Your task to perform on an android device: move a message to another label in the gmail app Image 0: 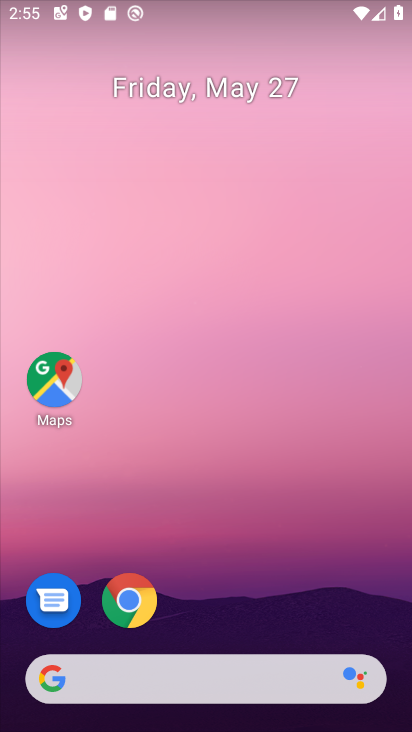
Step 0: drag from (265, 529) to (212, 171)
Your task to perform on an android device: move a message to another label in the gmail app Image 1: 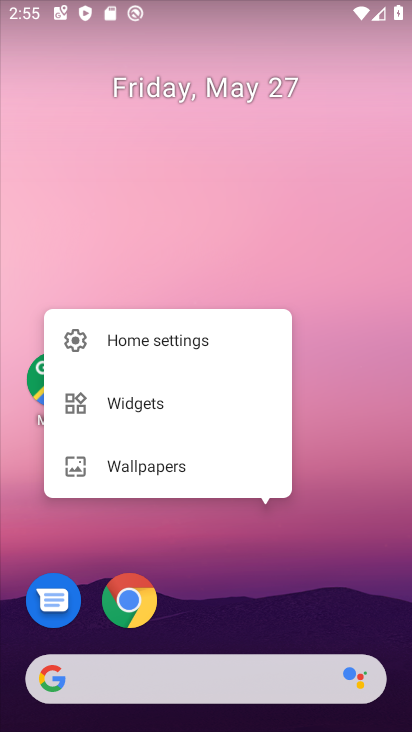
Step 1: drag from (257, 562) to (391, 106)
Your task to perform on an android device: move a message to another label in the gmail app Image 2: 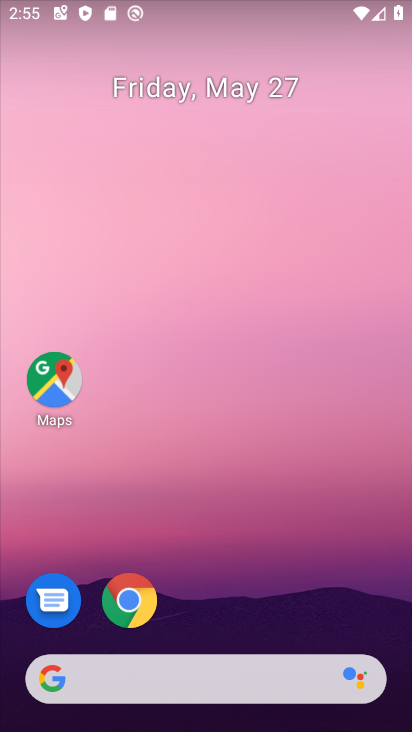
Step 2: drag from (265, 564) to (324, 66)
Your task to perform on an android device: move a message to another label in the gmail app Image 3: 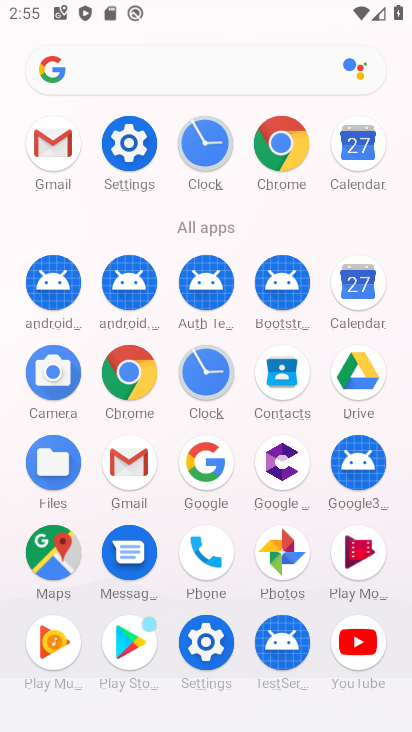
Step 3: click (138, 465)
Your task to perform on an android device: move a message to another label in the gmail app Image 4: 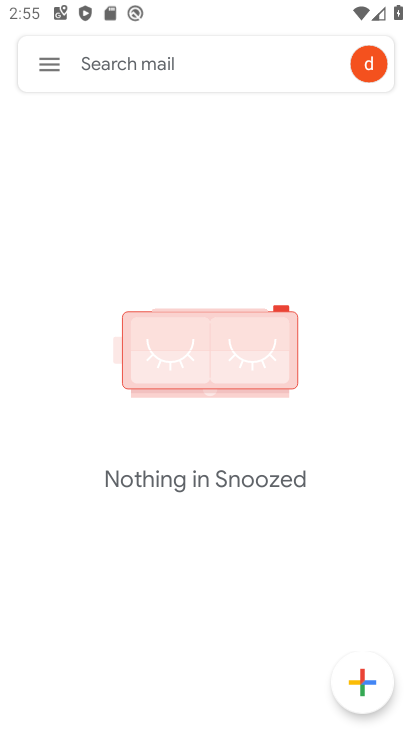
Step 4: click (57, 73)
Your task to perform on an android device: move a message to another label in the gmail app Image 5: 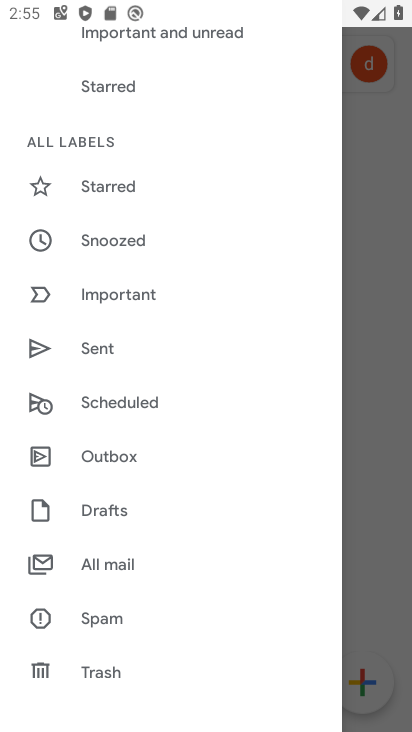
Step 5: click (165, 570)
Your task to perform on an android device: move a message to another label in the gmail app Image 6: 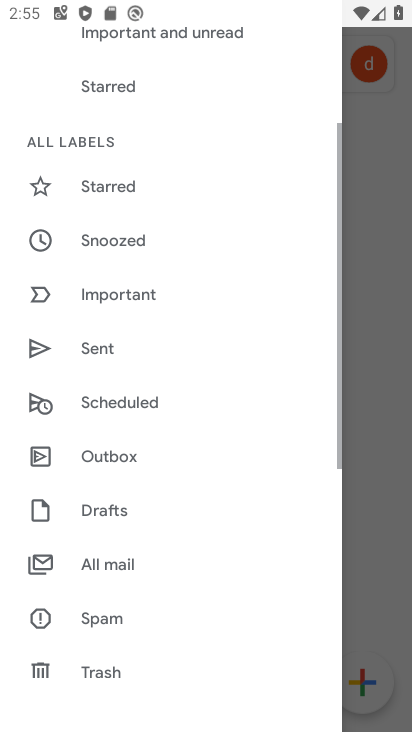
Step 6: click (165, 570)
Your task to perform on an android device: move a message to another label in the gmail app Image 7: 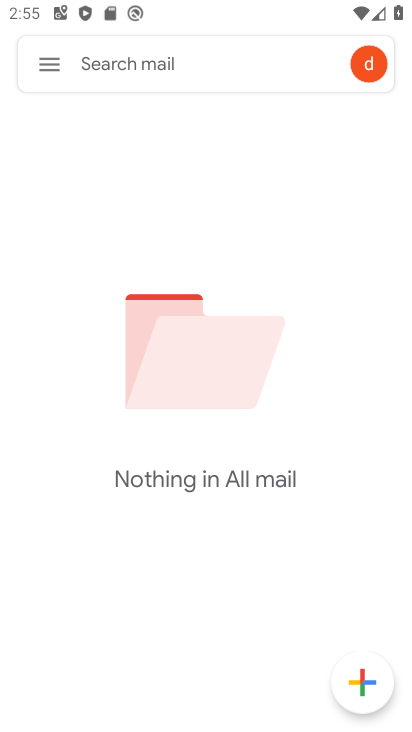
Step 7: task complete